Your task to perform on an android device: choose inbox layout in the gmail app Image 0: 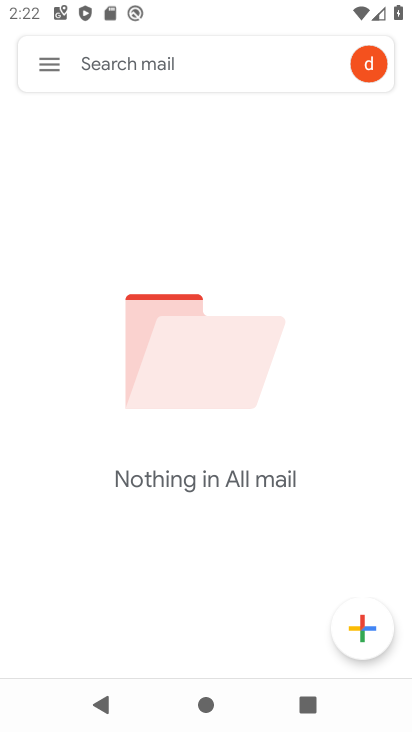
Step 0: click (50, 71)
Your task to perform on an android device: choose inbox layout in the gmail app Image 1: 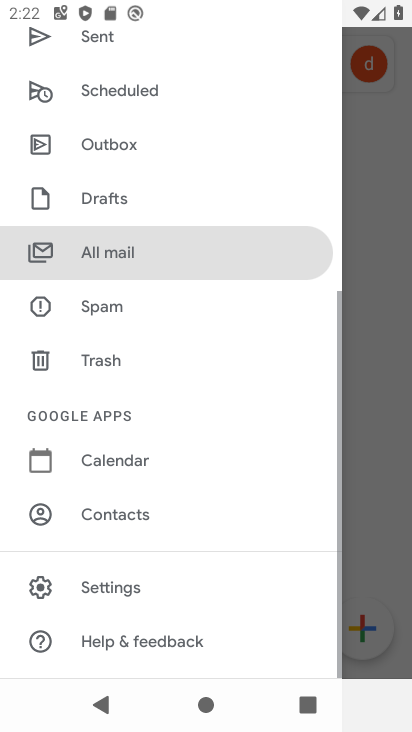
Step 1: drag from (185, 616) to (288, 214)
Your task to perform on an android device: choose inbox layout in the gmail app Image 2: 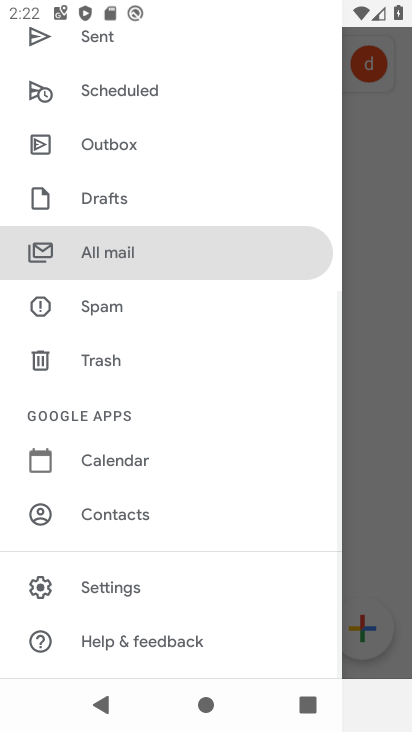
Step 2: click (113, 605)
Your task to perform on an android device: choose inbox layout in the gmail app Image 3: 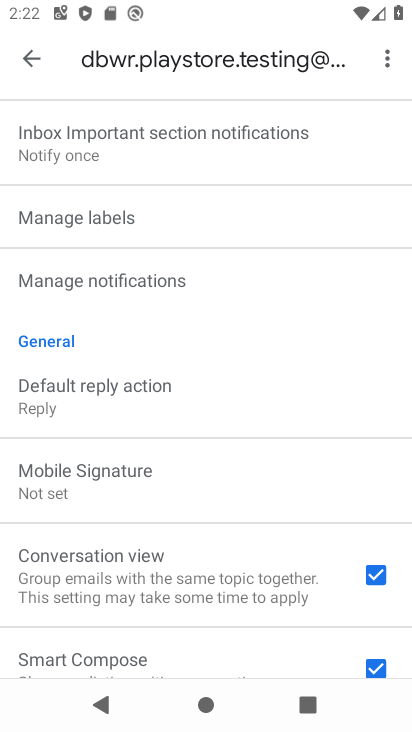
Step 3: drag from (200, 172) to (230, 637)
Your task to perform on an android device: choose inbox layout in the gmail app Image 4: 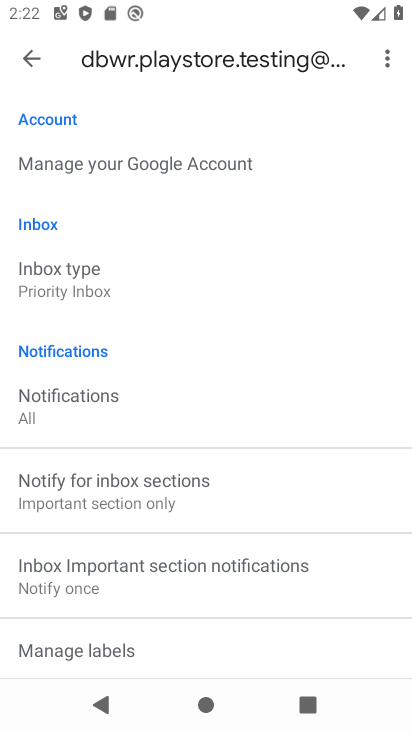
Step 4: click (89, 273)
Your task to perform on an android device: choose inbox layout in the gmail app Image 5: 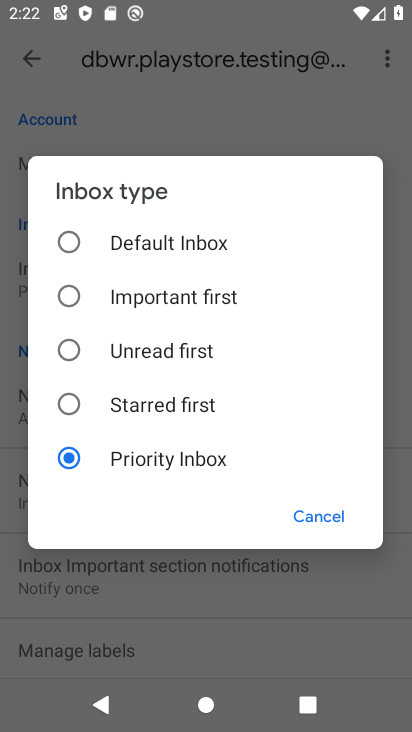
Step 5: task complete